Your task to perform on an android device: stop showing notifications on the lock screen Image 0: 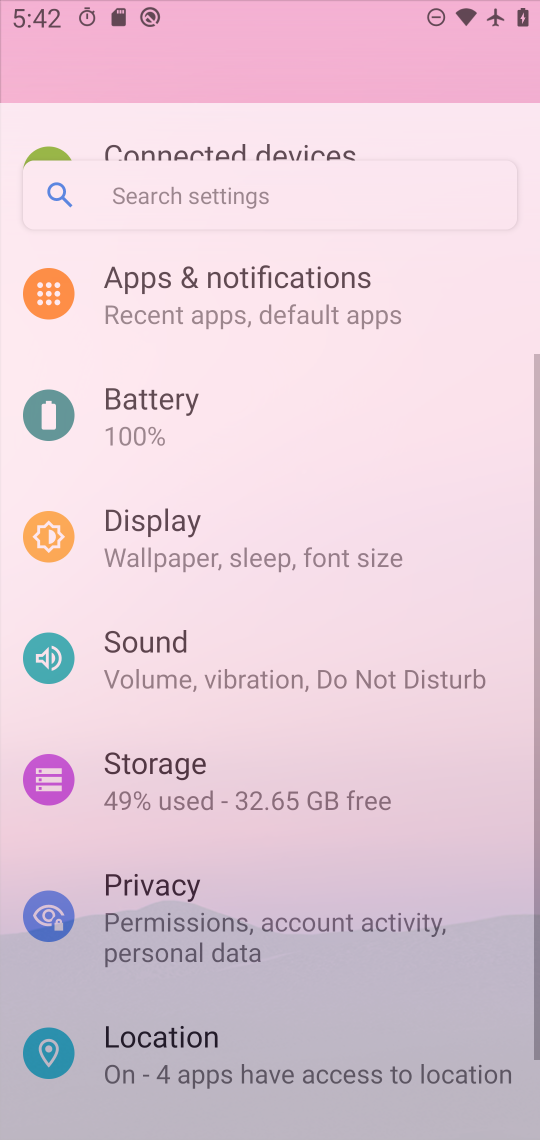
Step 0: press home button
Your task to perform on an android device: stop showing notifications on the lock screen Image 1: 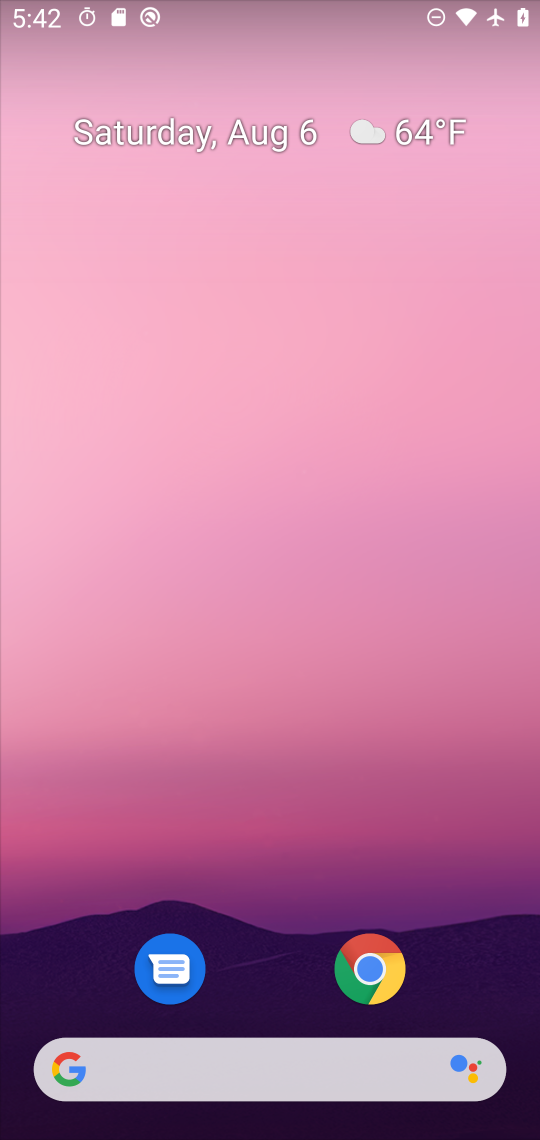
Step 1: drag from (259, 896) to (237, 443)
Your task to perform on an android device: stop showing notifications on the lock screen Image 2: 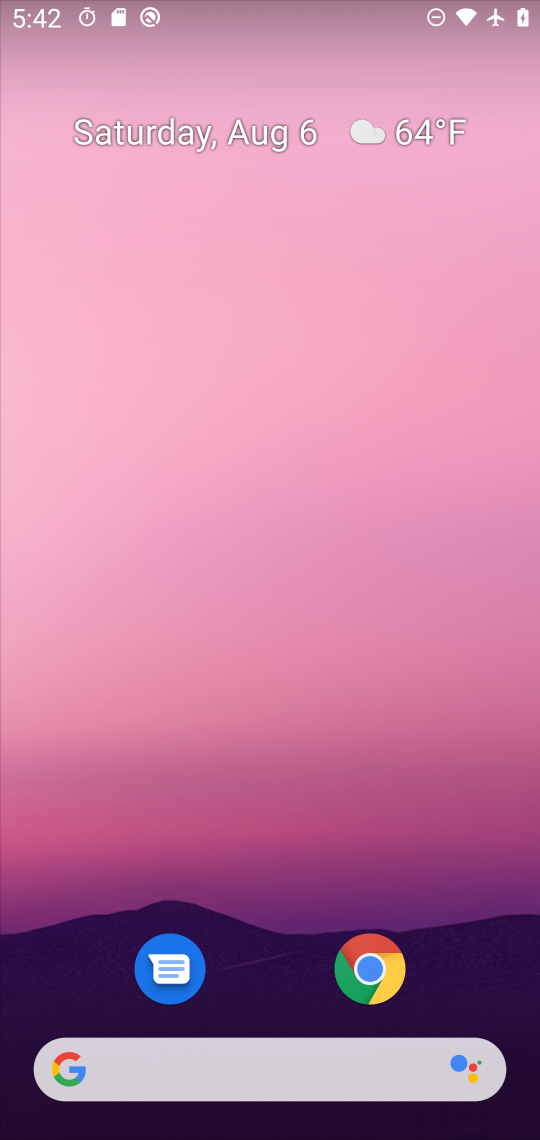
Step 2: drag from (261, 918) to (374, 362)
Your task to perform on an android device: stop showing notifications on the lock screen Image 3: 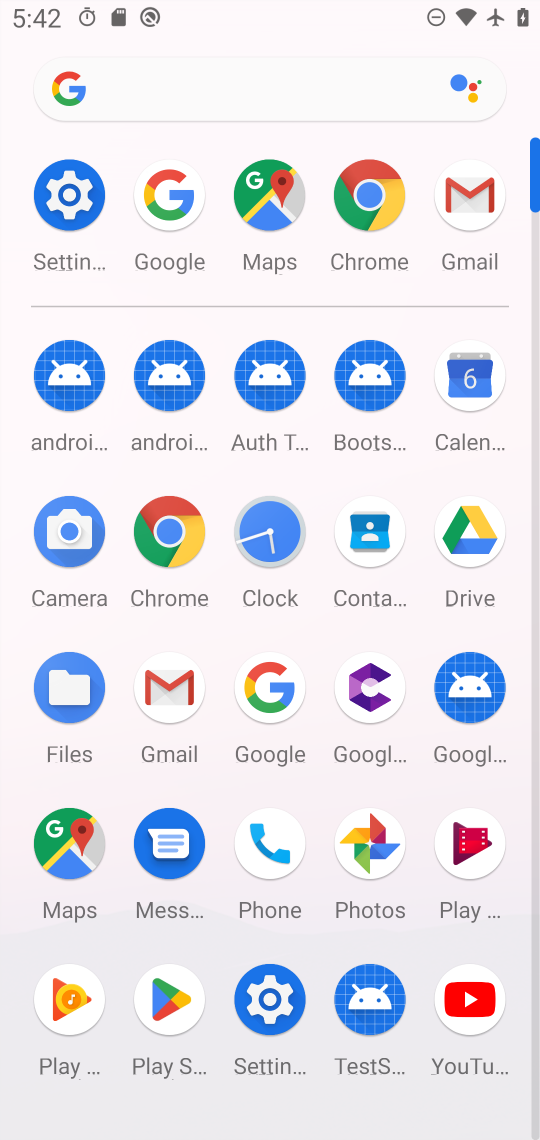
Step 3: click (72, 187)
Your task to perform on an android device: stop showing notifications on the lock screen Image 4: 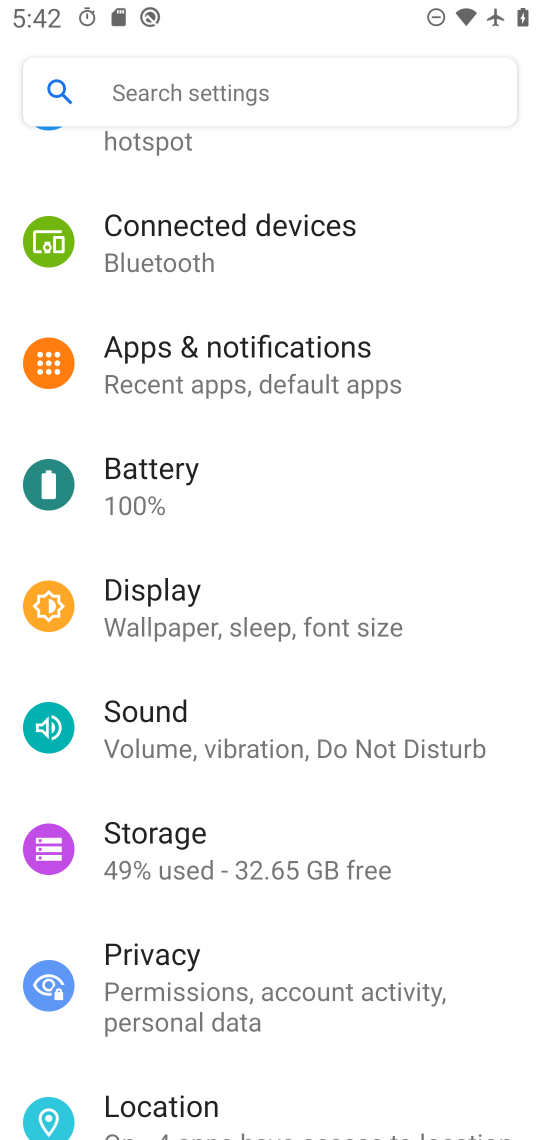
Step 4: click (222, 361)
Your task to perform on an android device: stop showing notifications on the lock screen Image 5: 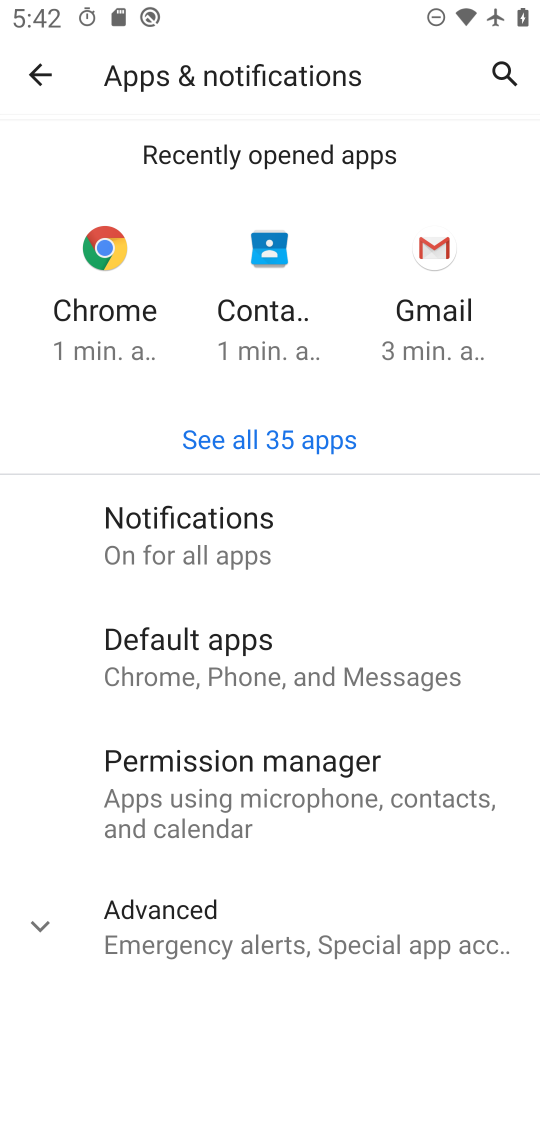
Step 5: click (218, 539)
Your task to perform on an android device: stop showing notifications on the lock screen Image 6: 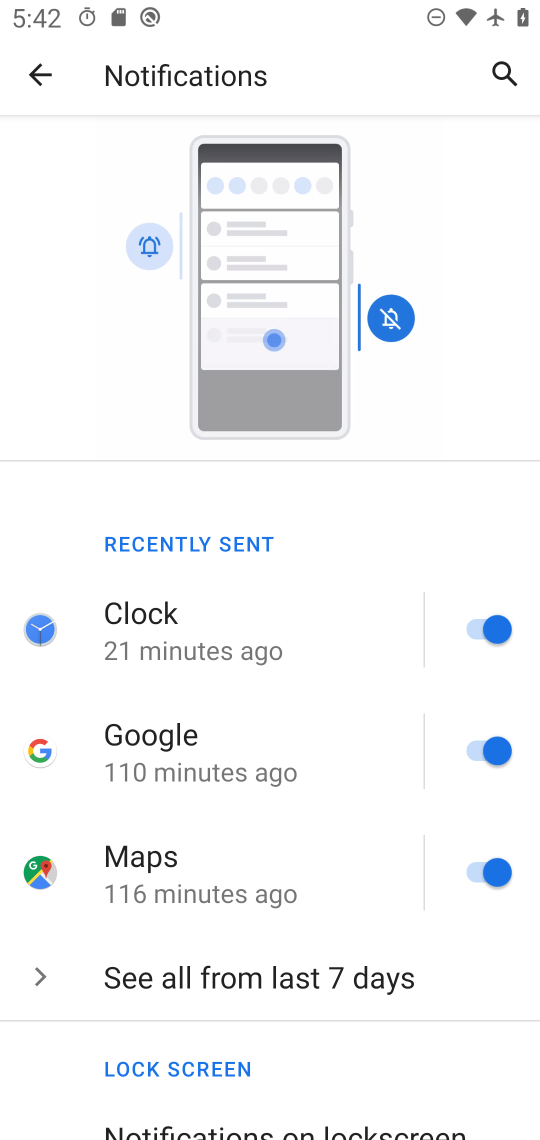
Step 6: drag from (445, 1054) to (447, 488)
Your task to perform on an android device: stop showing notifications on the lock screen Image 7: 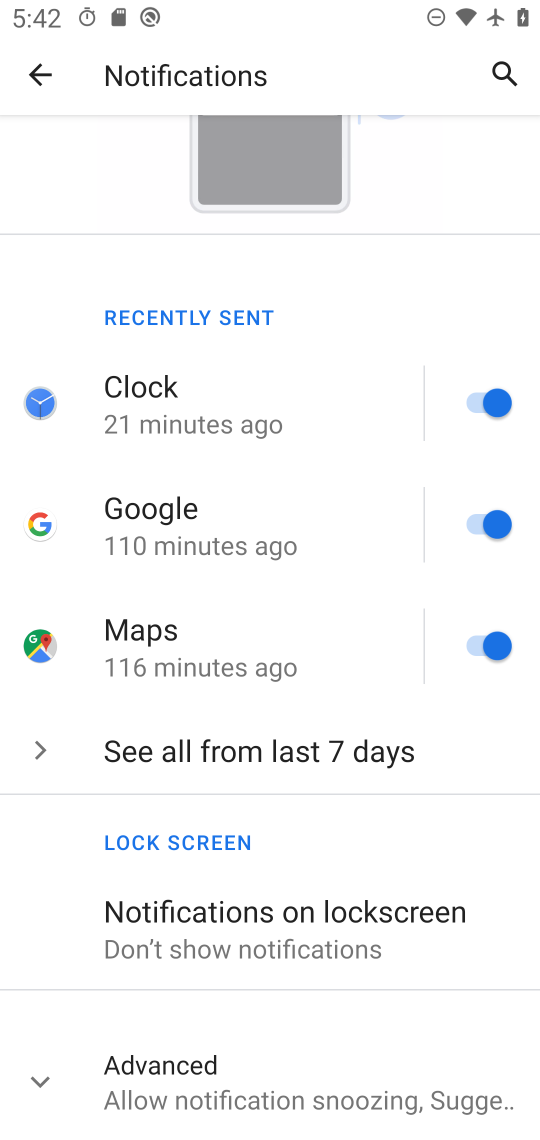
Step 7: click (259, 937)
Your task to perform on an android device: stop showing notifications on the lock screen Image 8: 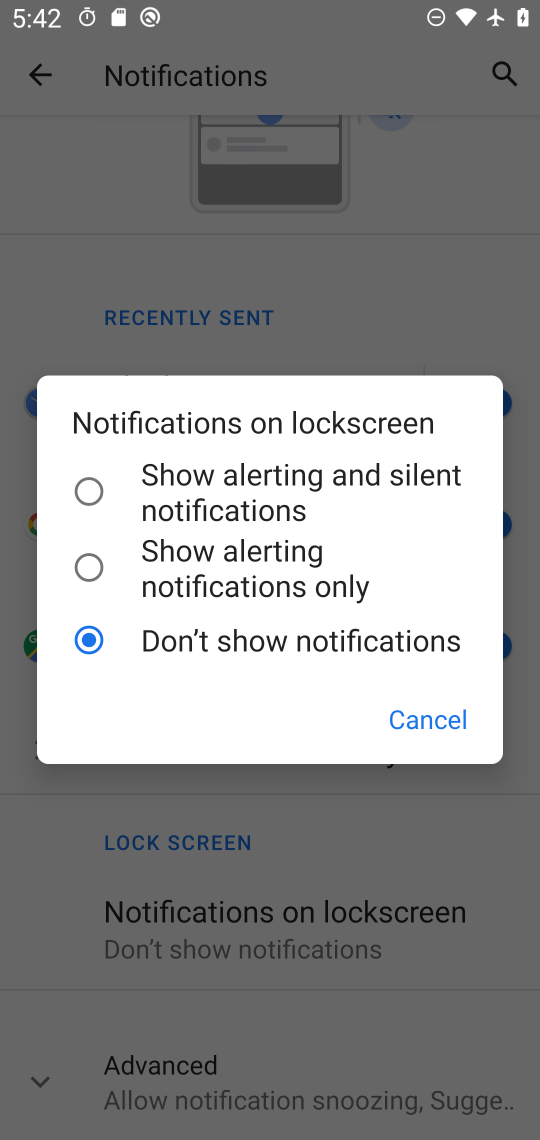
Step 8: task complete